Your task to perform on an android device: empty trash in google photos Image 0: 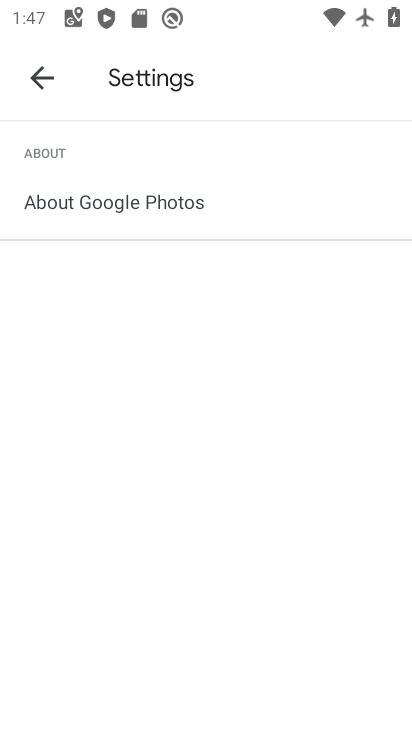
Step 0: press home button
Your task to perform on an android device: empty trash in google photos Image 1: 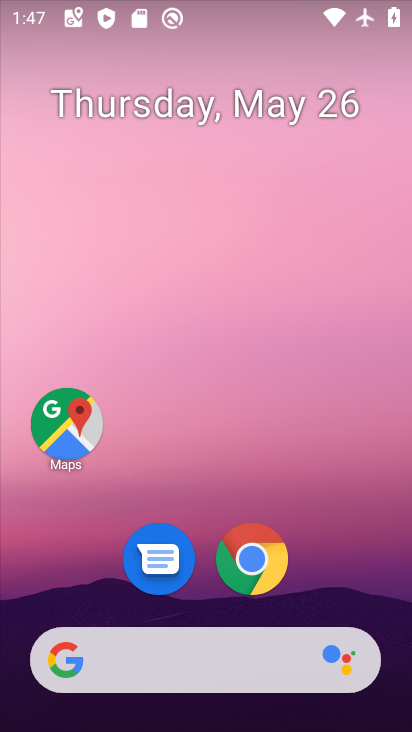
Step 1: drag from (199, 659) to (308, 78)
Your task to perform on an android device: empty trash in google photos Image 2: 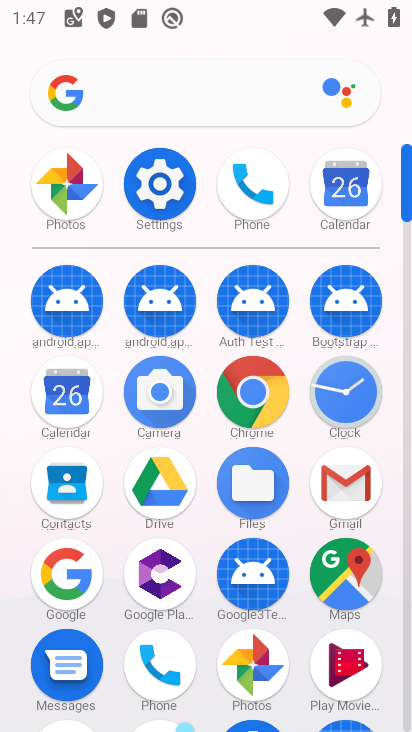
Step 2: drag from (209, 636) to (275, 158)
Your task to perform on an android device: empty trash in google photos Image 3: 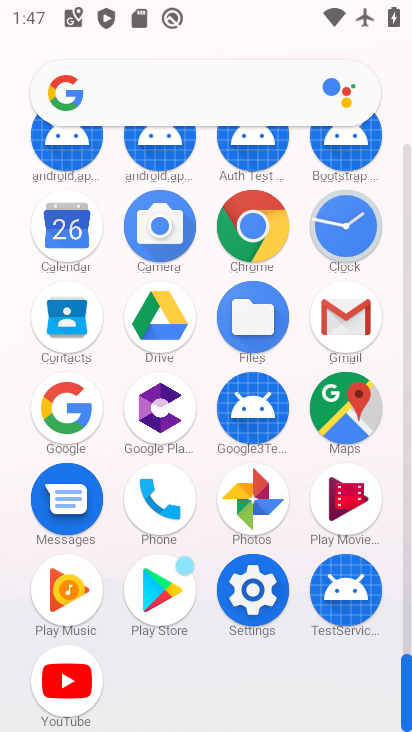
Step 3: click (252, 488)
Your task to perform on an android device: empty trash in google photos Image 4: 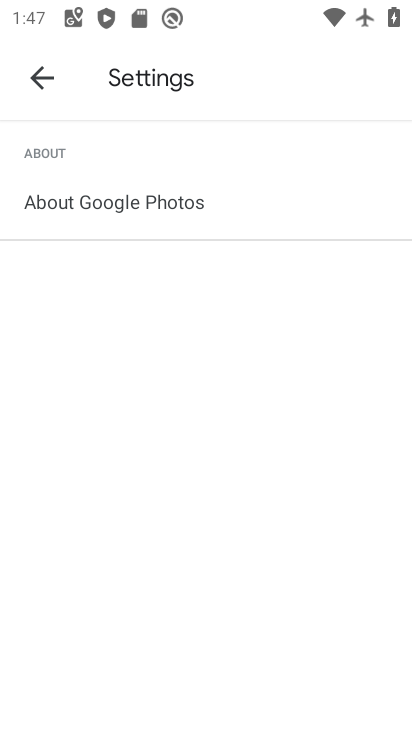
Step 4: click (35, 79)
Your task to perform on an android device: empty trash in google photos Image 5: 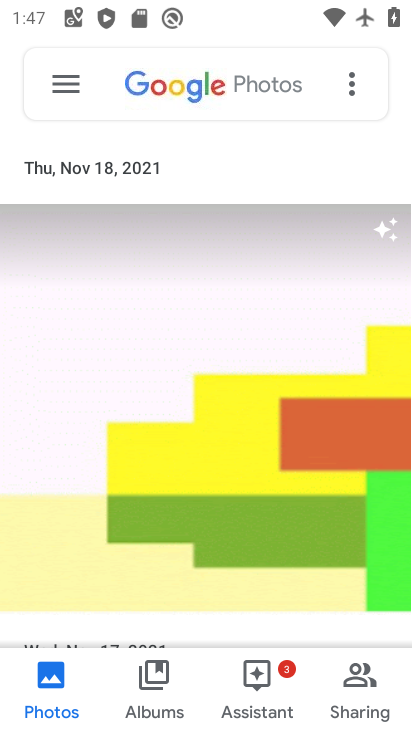
Step 5: click (69, 82)
Your task to perform on an android device: empty trash in google photos Image 6: 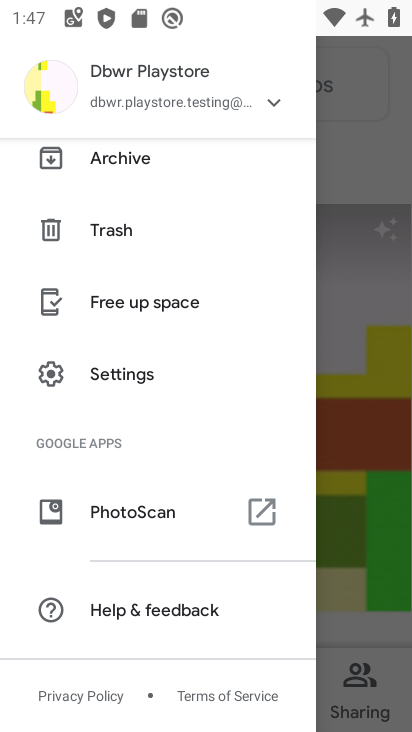
Step 6: click (112, 233)
Your task to perform on an android device: empty trash in google photos Image 7: 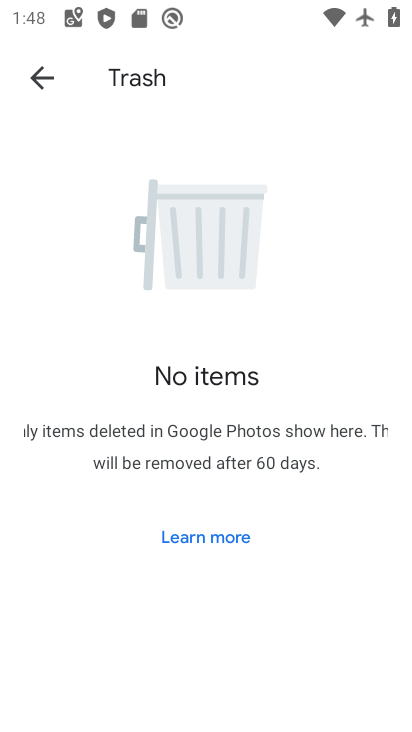
Step 7: task complete